Your task to perform on an android device: turn vacation reply on in the gmail app Image 0: 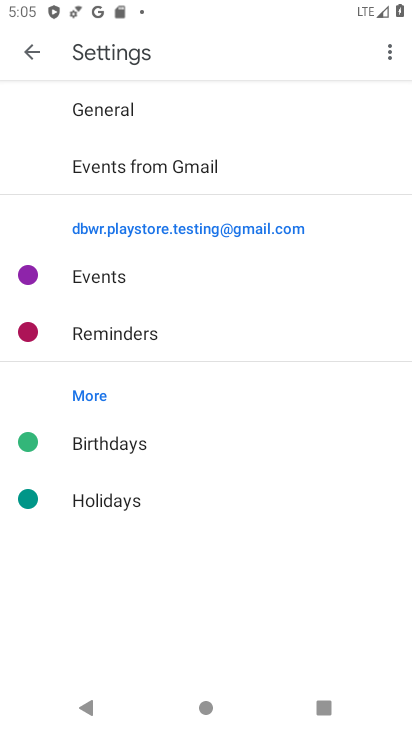
Step 0: drag from (341, 603) to (318, 73)
Your task to perform on an android device: turn vacation reply on in the gmail app Image 1: 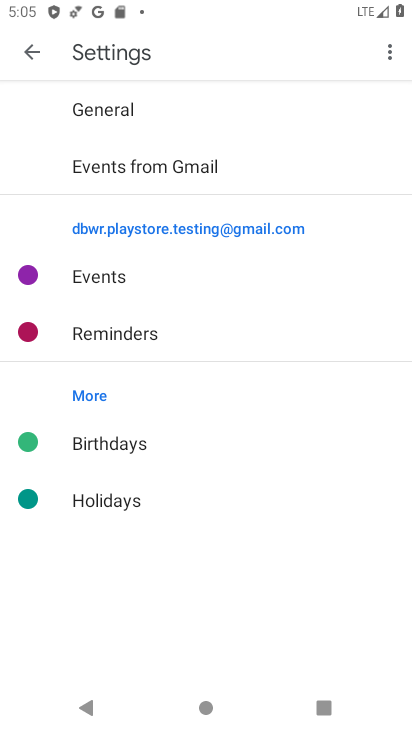
Step 1: press home button
Your task to perform on an android device: turn vacation reply on in the gmail app Image 2: 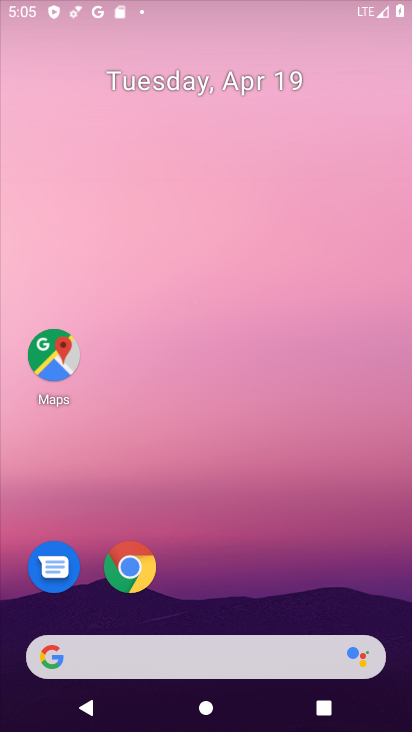
Step 2: drag from (234, 651) to (268, 0)
Your task to perform on an android device: turn vacation reply on in the gmail app Image 3: 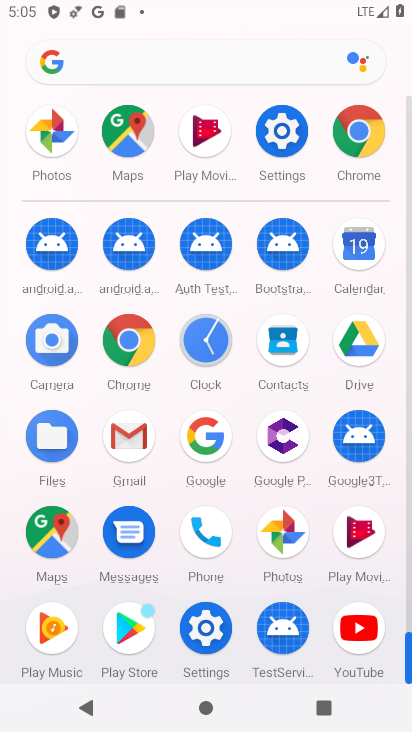
Step 3: click (134, 438)
Your task to perform on an android device: turn vacation reply on in the gmail app Image 4: 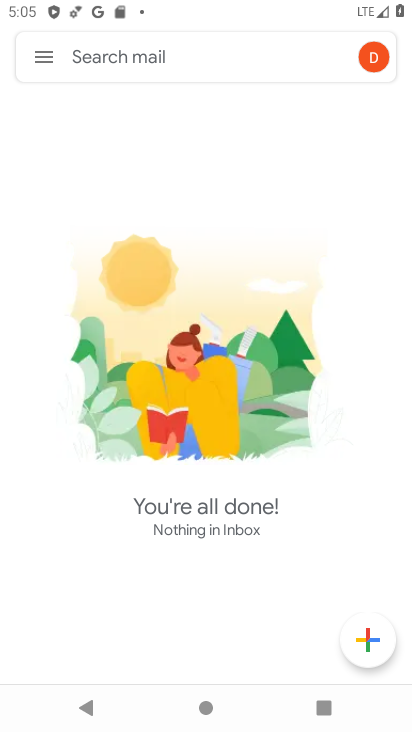
Step 4: click (50, 50)
Your task to perform on an android device: turn vacation reply on in the gmail app Image 5: 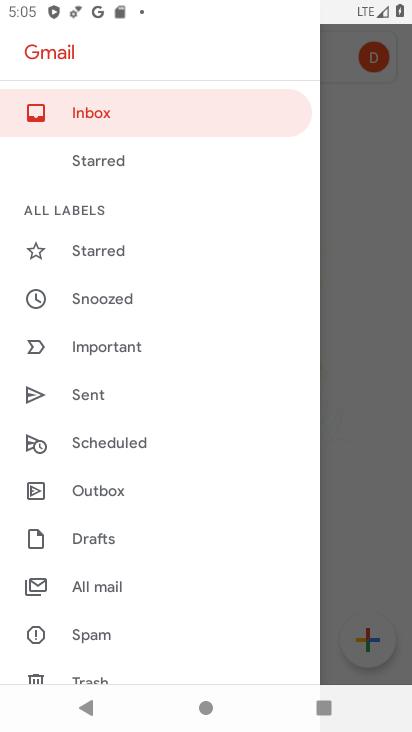
Step 5: drag from (122, 636) to (137, 61)
Your task to perform on an android device: turn vacation reply on in the gmail app Image 6: 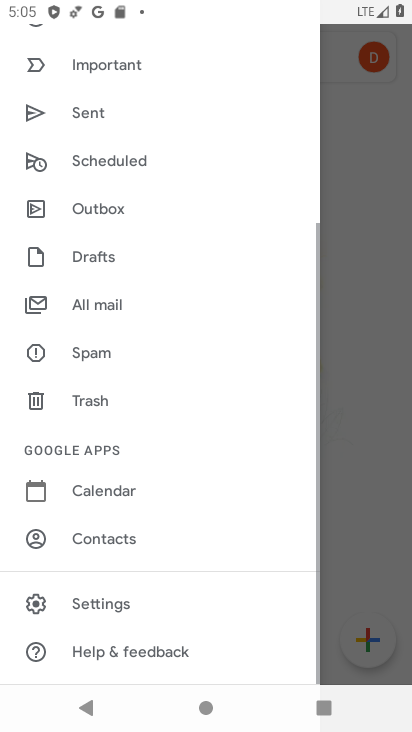
Step 6: click (100, 604)
Your task to perform on an android device: turn vacation reply on in the gmail app Image 7: 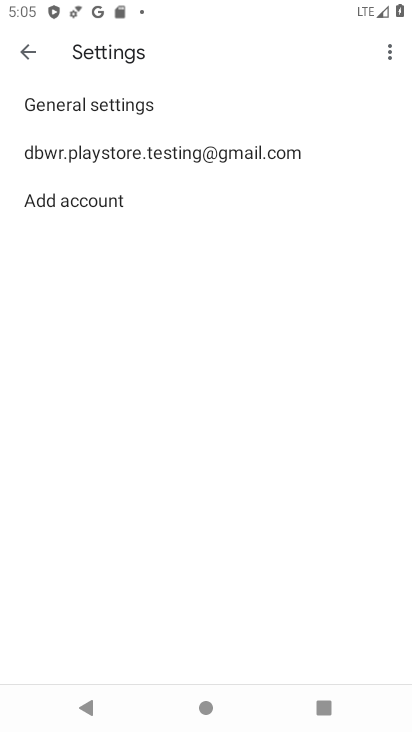
Step 7: click (306, 158)
Your task to perform on an android device: turn vacation reply on in the gmail app Image 8: 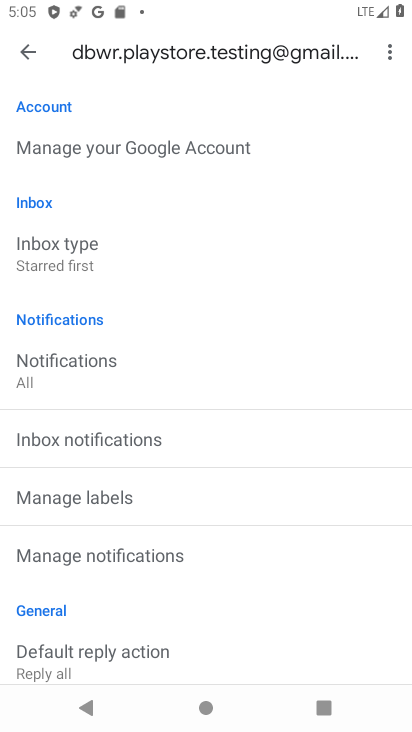
Step 8: drag from (257, 606) to (259, 98)
Your task to perform on an android device: turn vacation reply on in the gmail app Image 9: 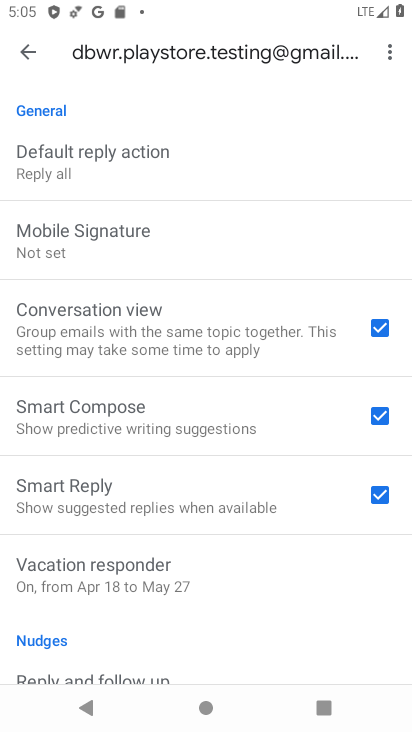
Step 9: click (177, 579)
Your task to perform on an android device: turn vacation reply on in the gmail app Image 10: 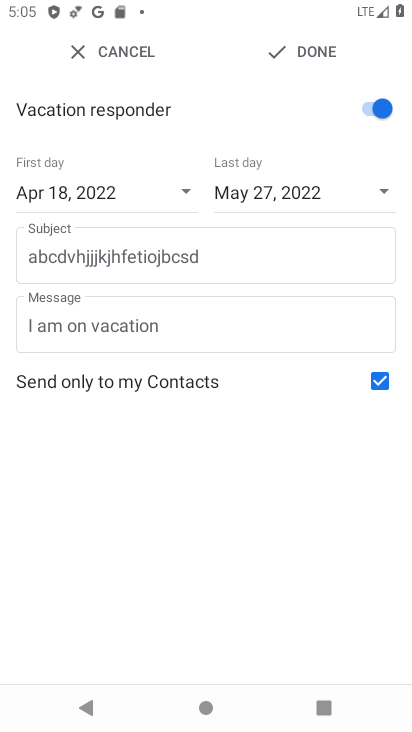
Step 10: click (308, 54)
Your task to perform on an android device: turn vacation reply on in the gmail app Image 11: 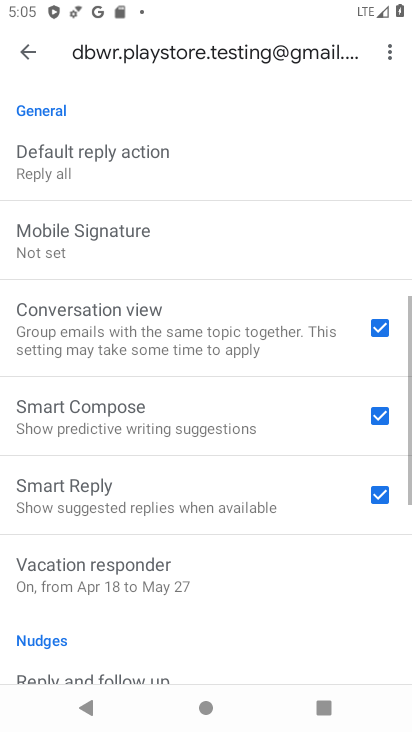
Step 11: task complete